Your task to perform on an android device: open app "VLC for Android" (install if not already installed) and go to login screen Image 0: 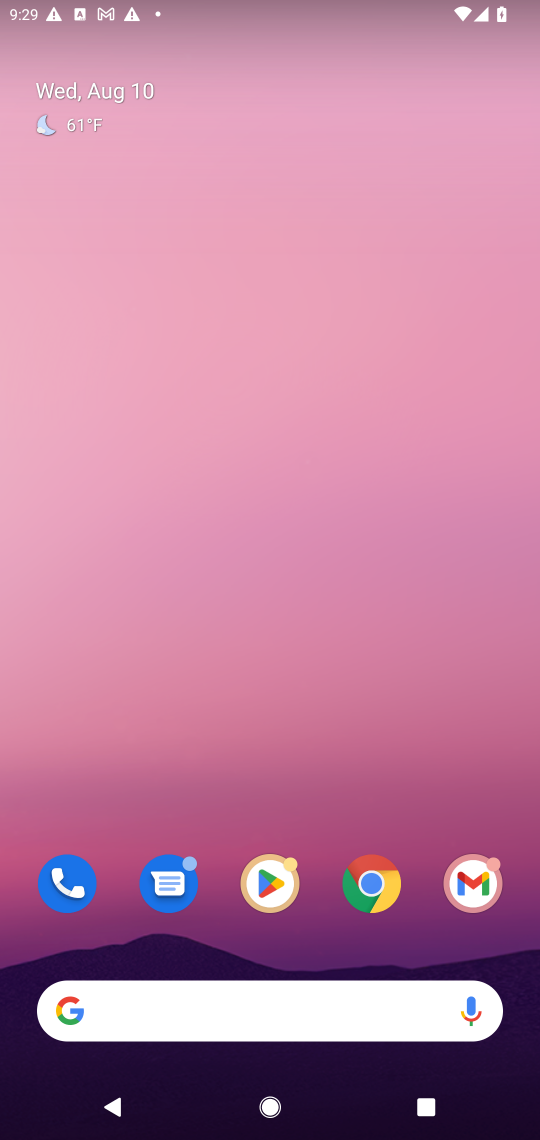
Step 0: click (261, 882)
Your task to perform on an android device: open app "VLC for Android" (install if not already installed) and go to login screen Image 1: 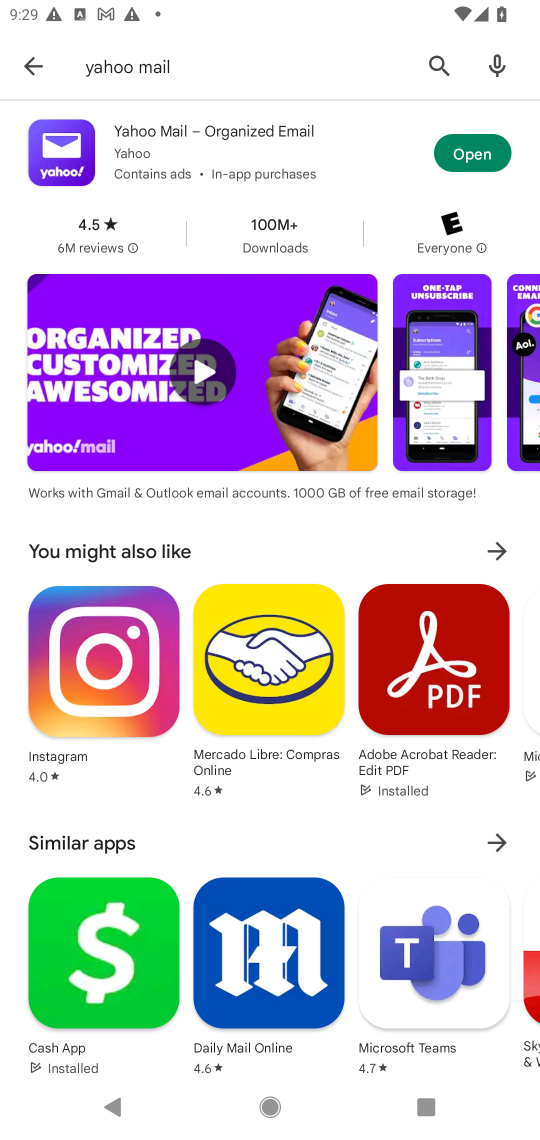
Step 1: click (446, 68)
Your task to perform on an android device: open app "VLC for Android" (install if not already installed) and go to login screen Image 2: 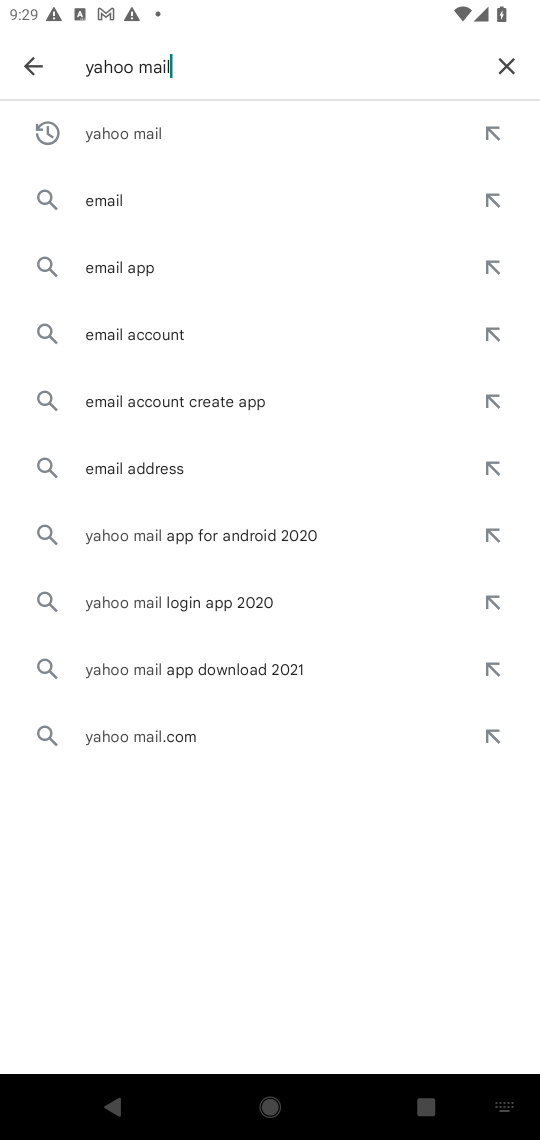
Step 2: click (493, 68)
Your task to perform on an android device: open app "VLC for Android" (install if not already installed) and go to login screen Image 3: 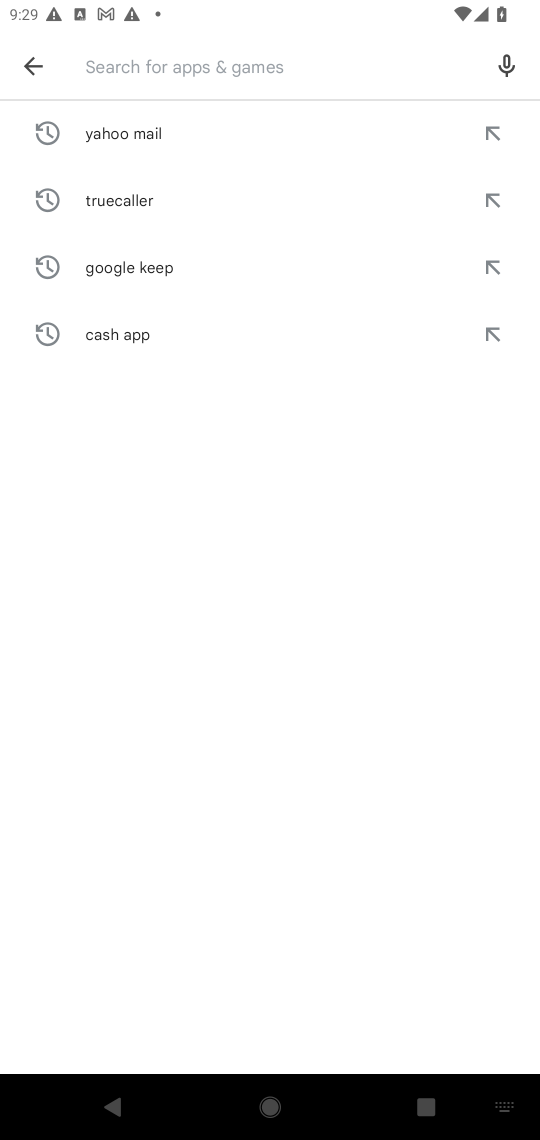
Step 3: type "VLC for Android"
Your task to perform on an android device: open app "VLC for Android" (install if not already installed) and go to login screen Image 4: 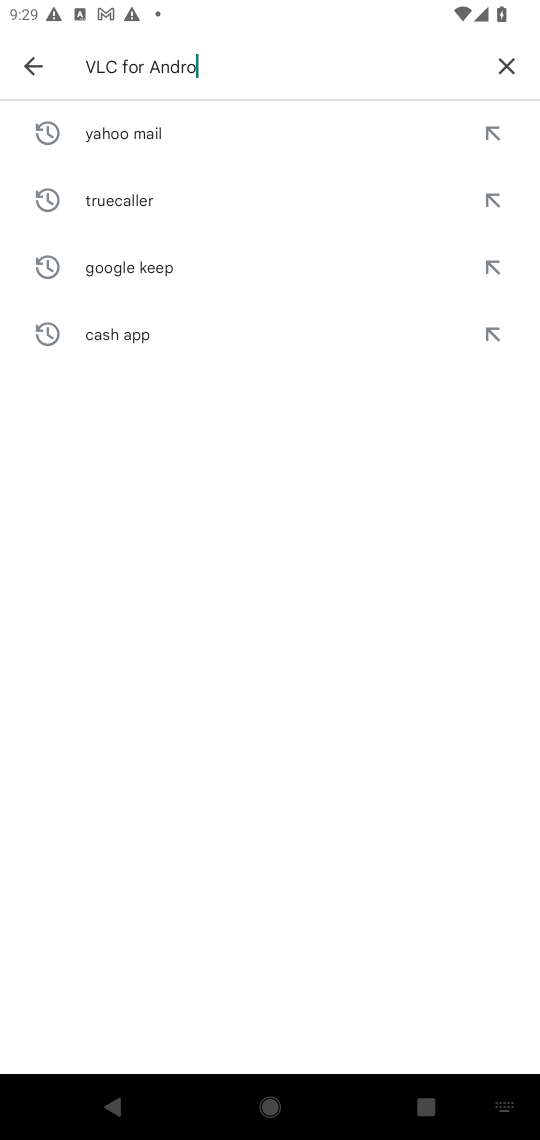
Step 4: type ""
Your task to perform on an android device: open app "VLC for Android" (install if not already installed) and go to login screen Image 5: 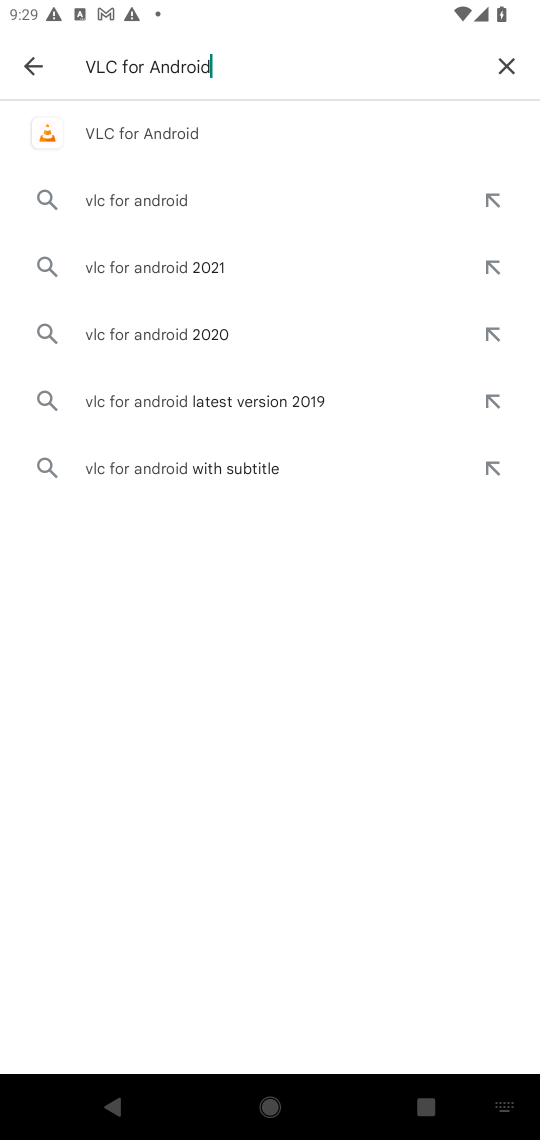
Step 5: click (142, 140)
Your task to perform on an android device: open app "VLC for Android" (install if not already installed) and go to login screen Image 6: 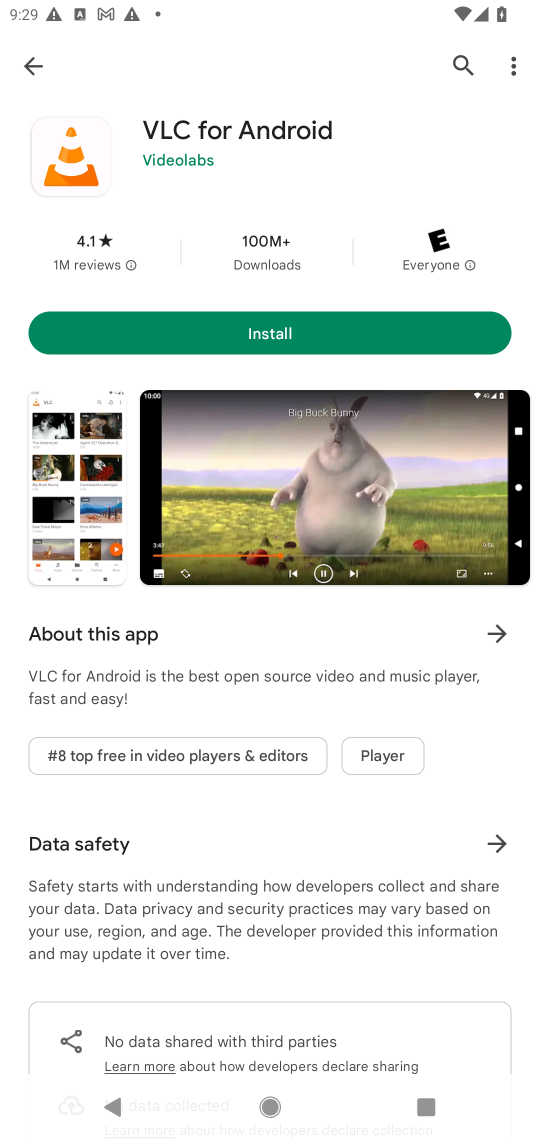
Step 6: click (264, 338)
Your task to perform on an android device: open app "VLC for Android" (install if not already installed) and go to login screen Image 7: 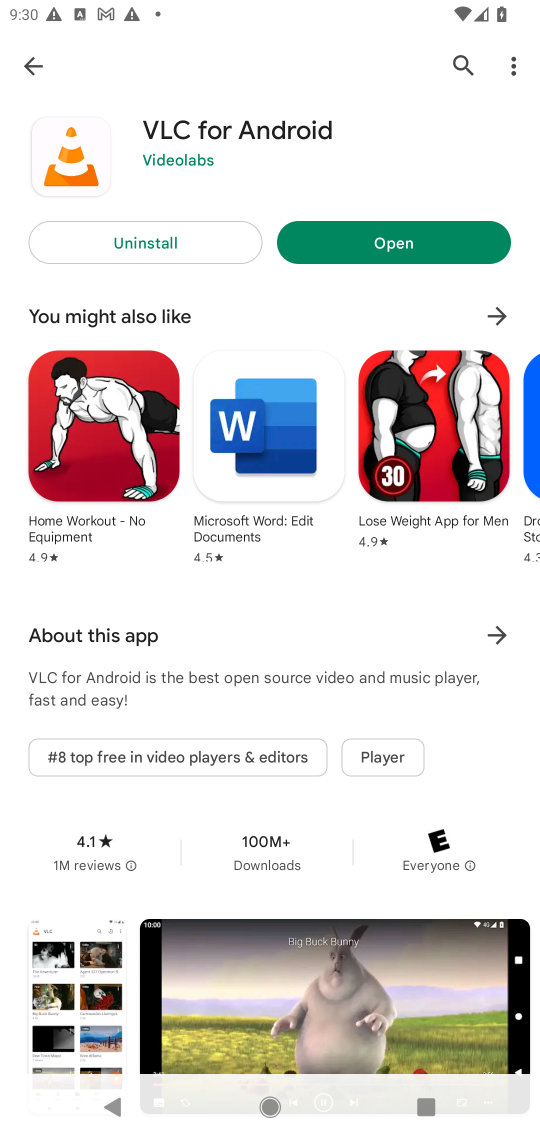
Step 7: click (396, 231)
Your task to perform on an android device: open app "VLC for Android" (install if not already installed) and go to login screen Image 8: 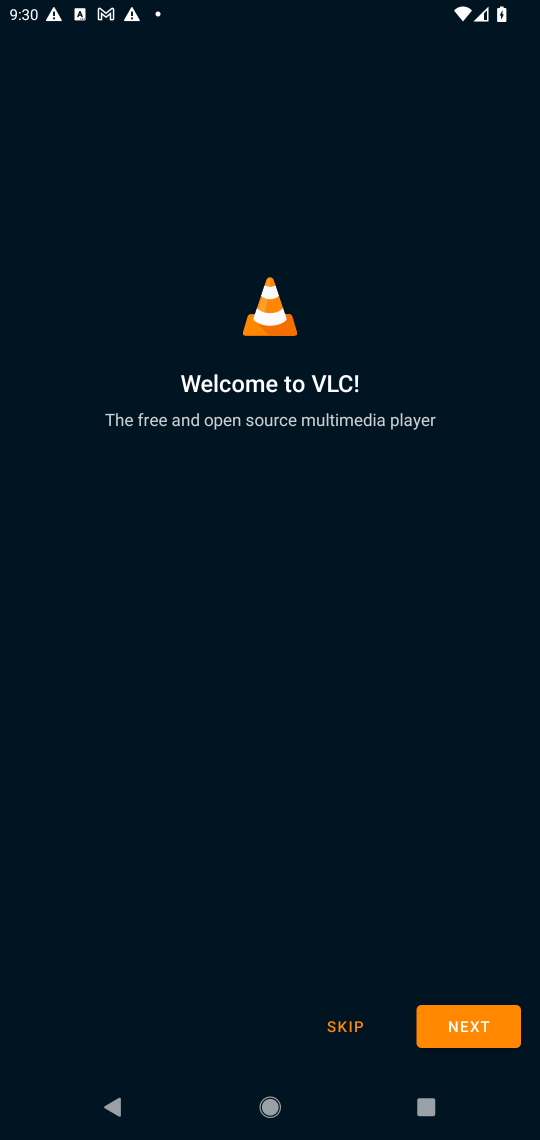
Step 8: task complete